Your task to perform on an android device: Go to wifi settings Image 0: 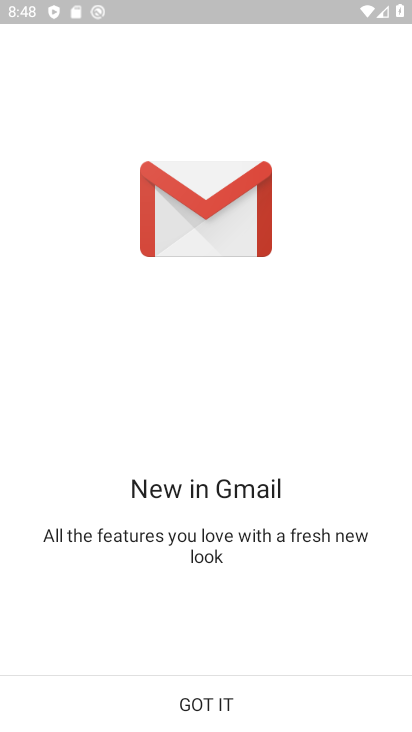
Step 0: press home button
Your task to perform on an android device: Go to wifi settings Image 1: 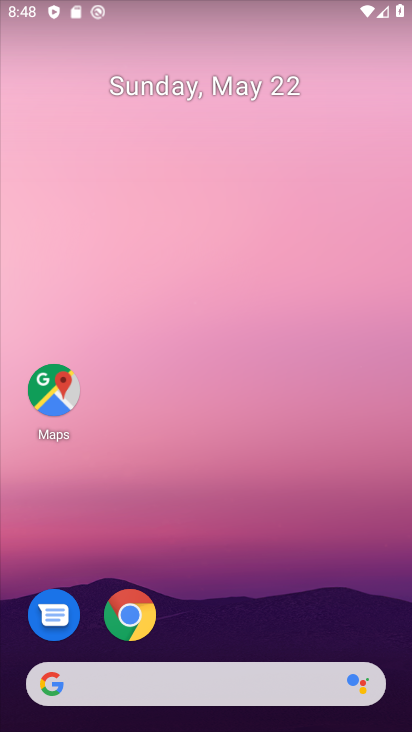
Step 1: drag from (319, 571) to (319, 232)
Your task to perform on an android device: Go to wifi settings Image 2: 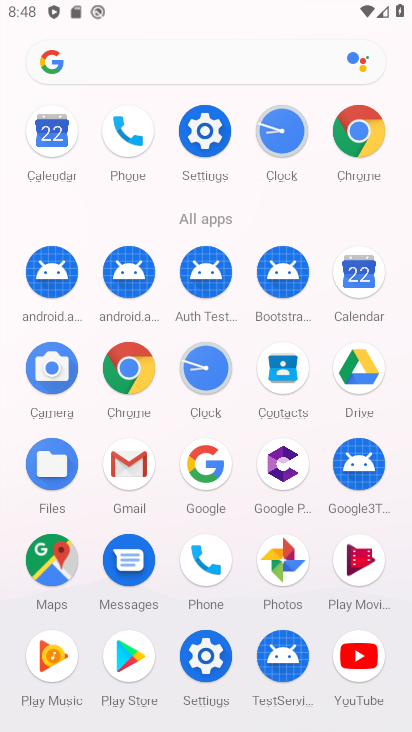
Step 2: click (200, 136)
Your task to perform on an android device: Go to wifi settings Image 3: 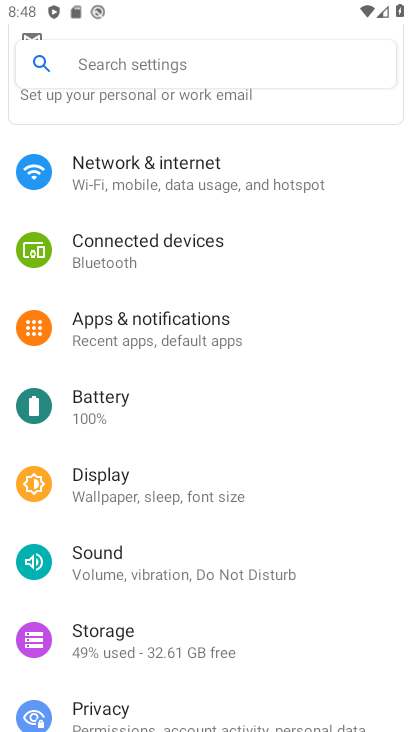
Step 3: click (201, 177)
Your task to perform on an android device: Go to wifi settings Image 4: 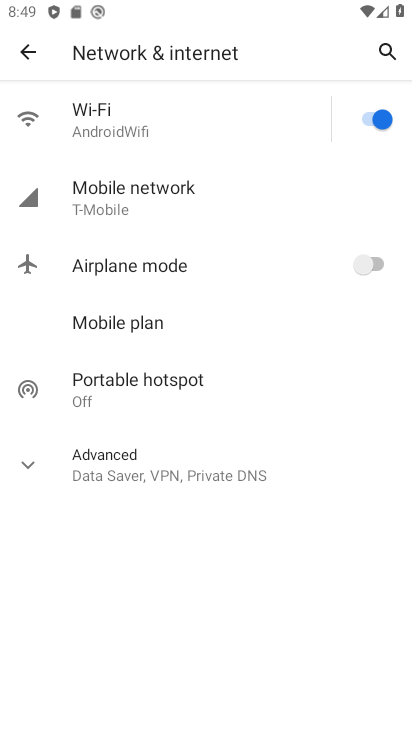
Step 4: click (221, 117)
Your task to perform on an android device: Go to wifi settings Image 5: 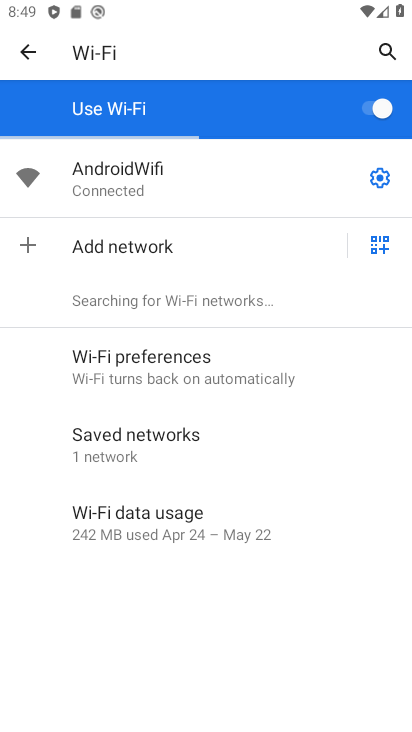
Step 5: task complete